Your task to perform on an android device: Go to Yahoo.com Image 0: 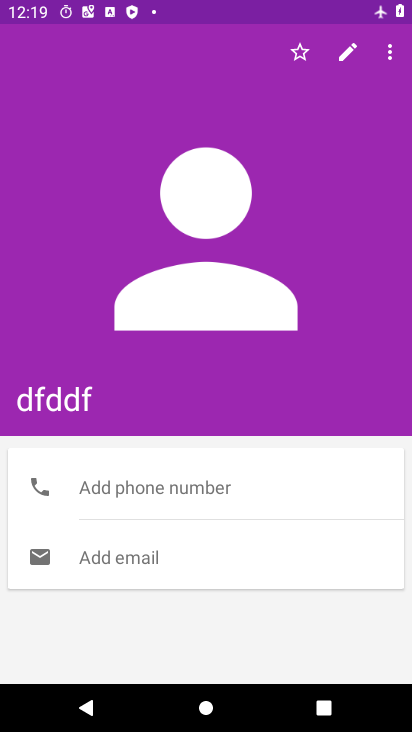
Step 0: press home button
Your task to perform on an android device: Go to Yahoo.com Image 1: 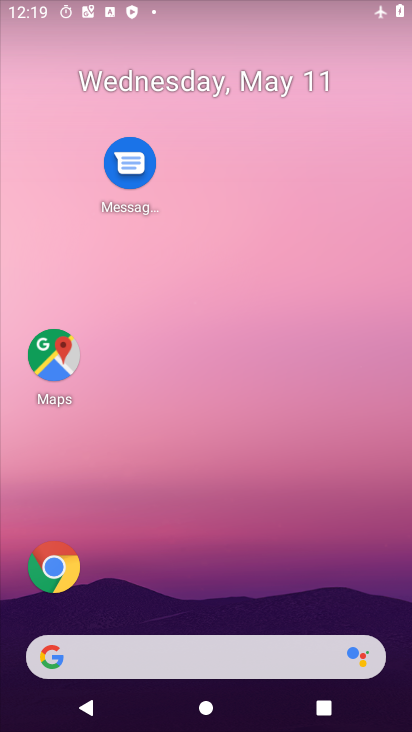
Step 1: drag from (209, 613) to (198, 198)
Your task to perform on an android device: Go to Yahoo.com Image 2: 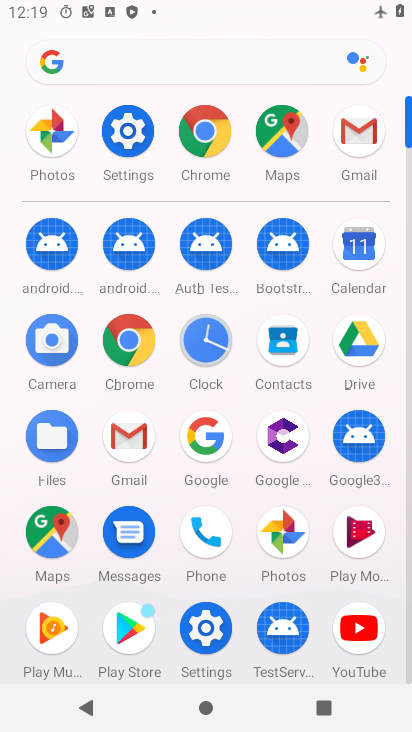
Step 2: click (127, 356)
Your task to perform on an android device: Go to Yahoo.com Image 3: 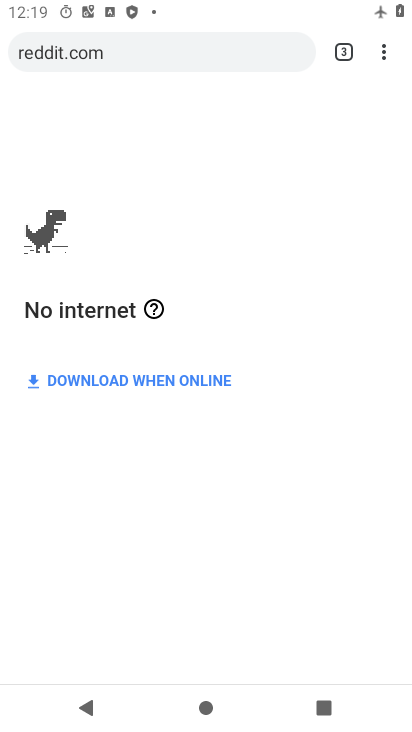
Step 3: task complete